Your task to perform on an android device: check android version Image 0: 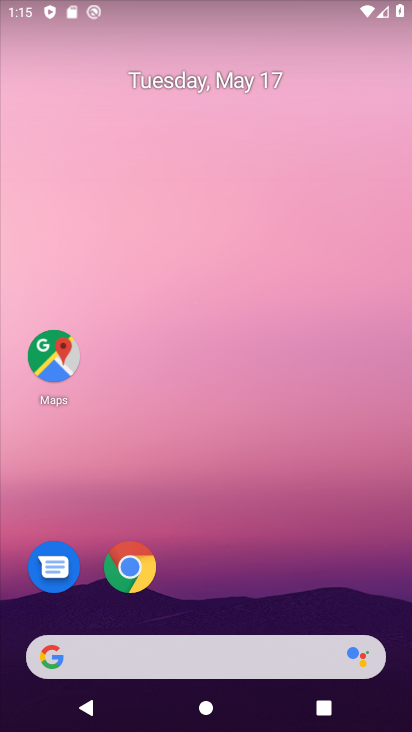
Step 0: drag from (387, 608) to (328, 24)
Your task to perform on an android device: check android version Image 1: 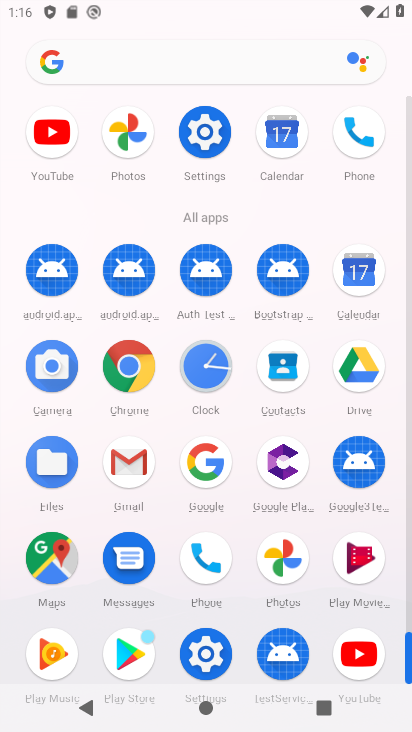
Step 1: click (202, 654)
Your task to perform on an android device: check android version Image 2: 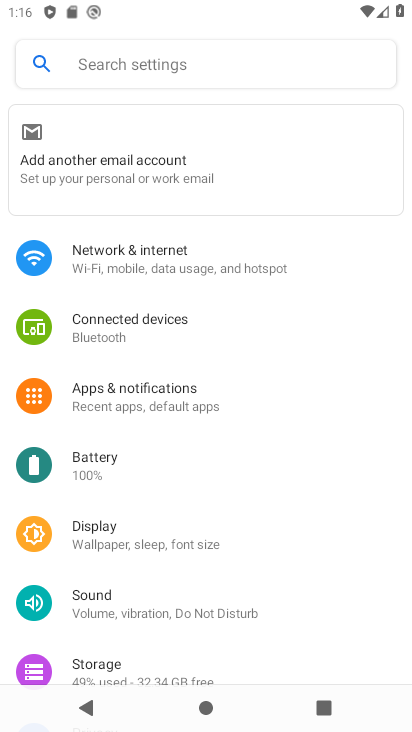
Step 2: drag from (285, 652) to (282, 110)
Your task to perform on an android device: check android version Image 3: 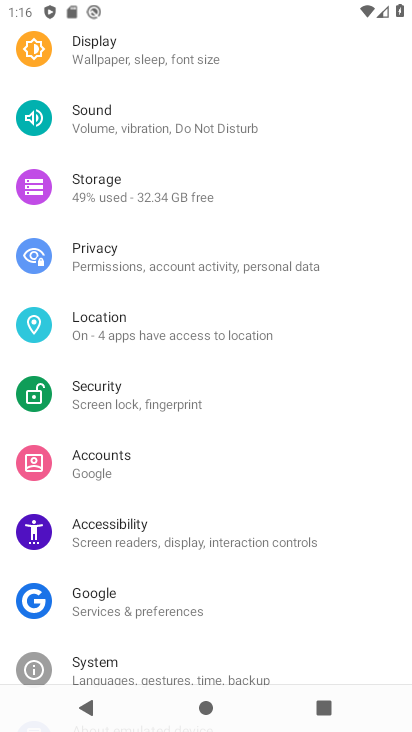
Step 3: drag from (309, 652) to (344, 262)
Your task to perform on an android device: check android version Image 4: 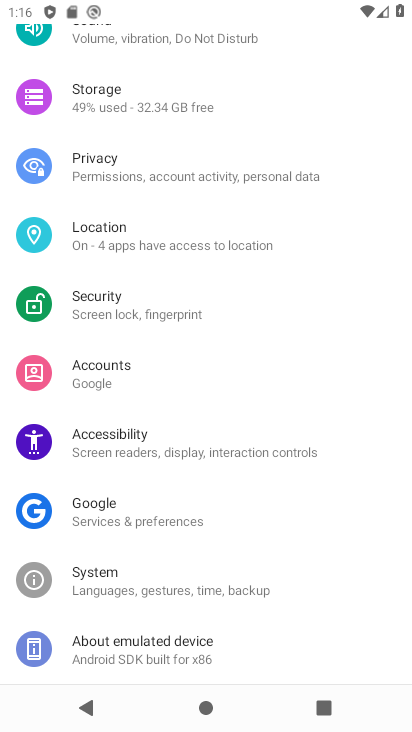
Step 4: click (132, 656)
Your task to perform on an android device: check android version Image 5: 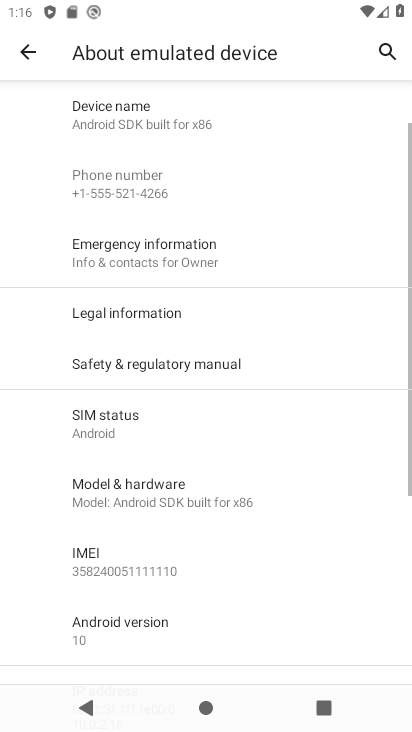
Step 5: click (131, 622)
Your task to perform on an android device: check android version Image 6: 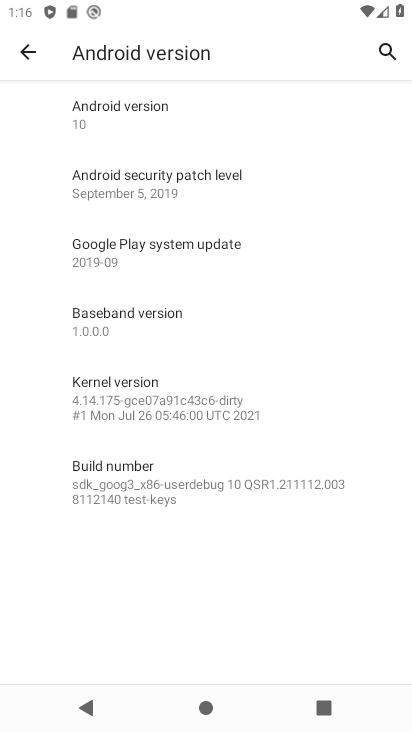
Step 6: task complete